Your task to perform on an android device: Go to calendar. Show me events next week Image 0: 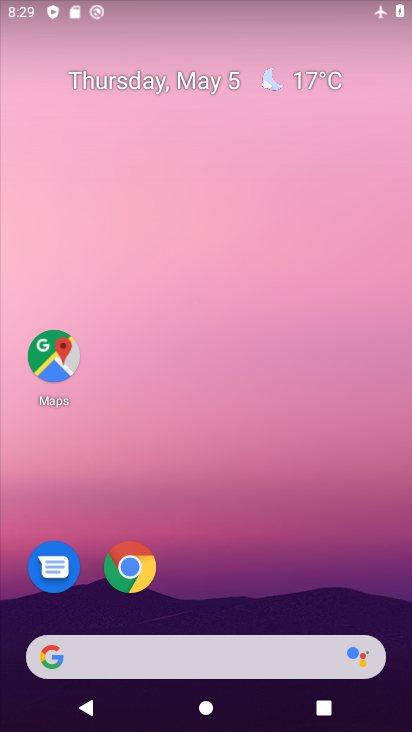
Step 0: drag from (224, 727) to (202, 154)
Your task to perform on an android device: Go to calendar. Show me events next week Image 1: 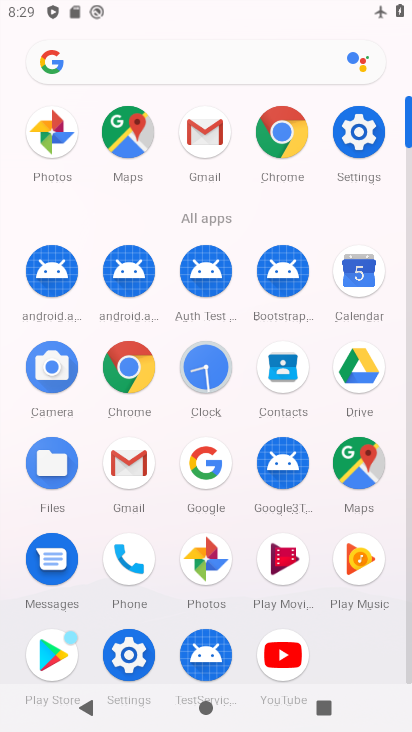
Step 1: click (360, 274)
Your task to perform on an android device: Go to calendar. Show me events next week Image 2: 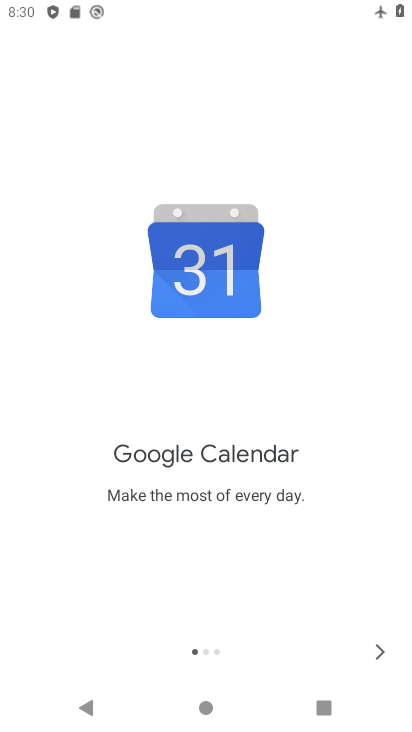
Step 2: click (379, 655)
Your task to perform on an android device: Go to calendar. Show me events next week Image 3: 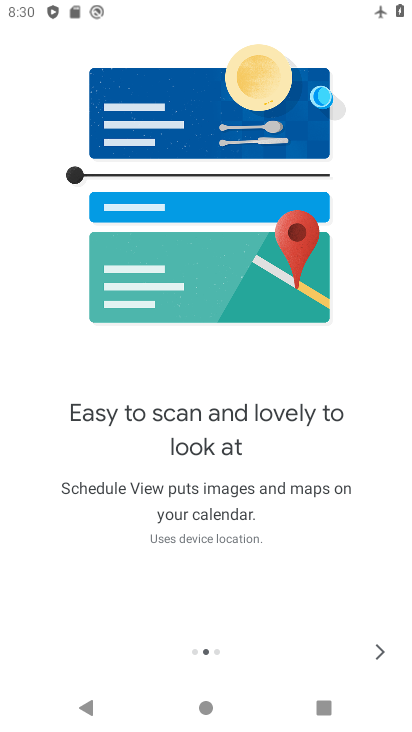
Step 3: click (378, 648)
Your task to perform on an android device: Go to calendar. Show me events next week Image 4: 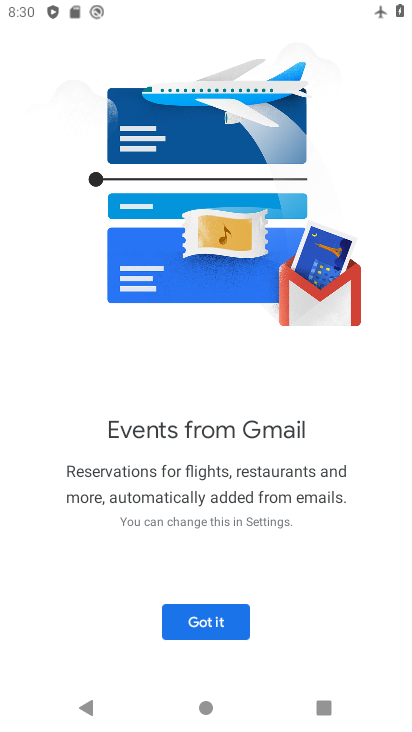
Step 4: click (213, 616)
Your task to perform on an android device: Go to calendar. Show me events next week Image 5: 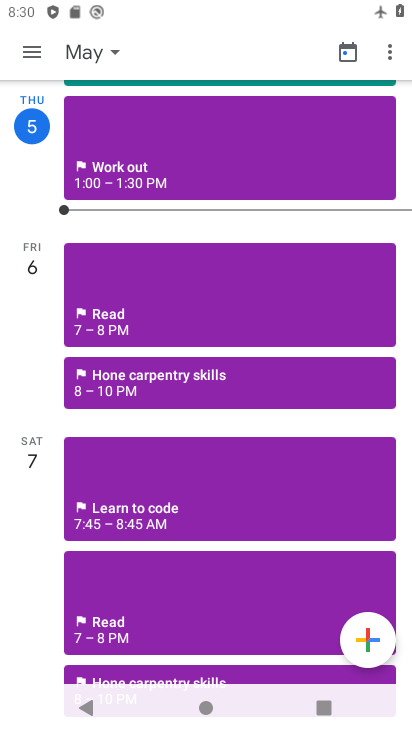
Step 5: click (30, 49)
Your task to perform on an android device: Go to calendar. Show me events next week Image 6: 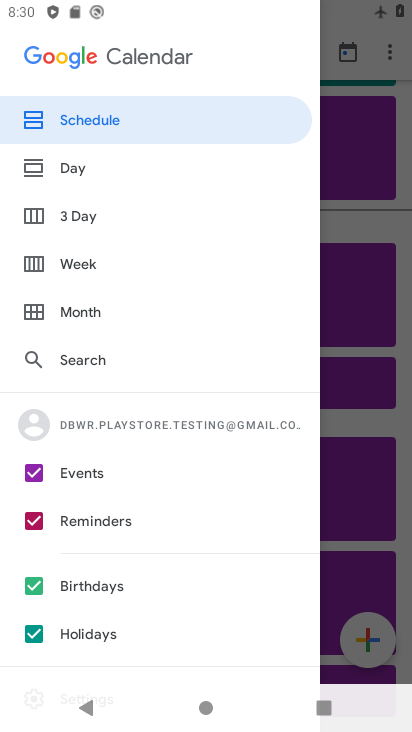
Step 6: click (36, 629)
Your task to perform on an android device: Go to calendar. Show me events next week Image 7: 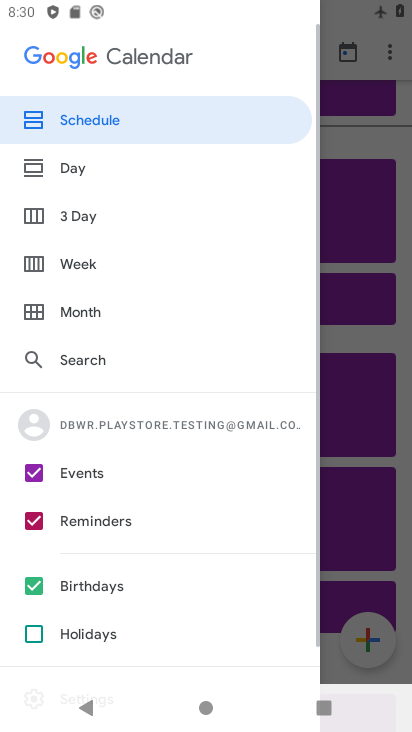
Step 7: click (34, 581)
Your task to perform on an android device: Go to calendar. Show me events next week Image 8: 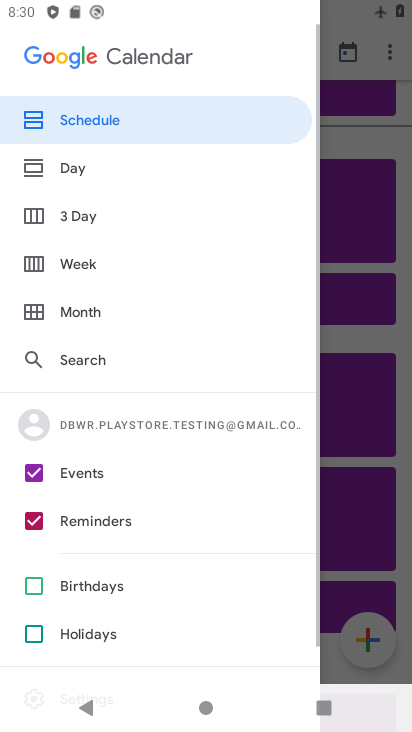
Step 8: click (33, 520)
Your task to perform on an android device: Go to calendar. Show me events next week Image 9: 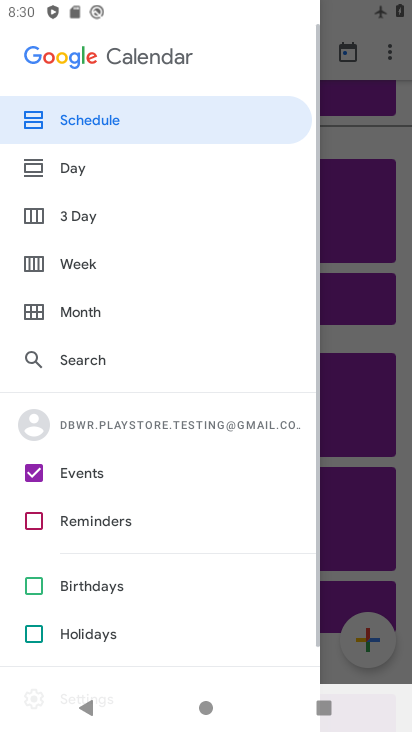
Step 9: click (82, 259)
Your task to perform on an android device: Go to calendar. Show me events next week Image 10: 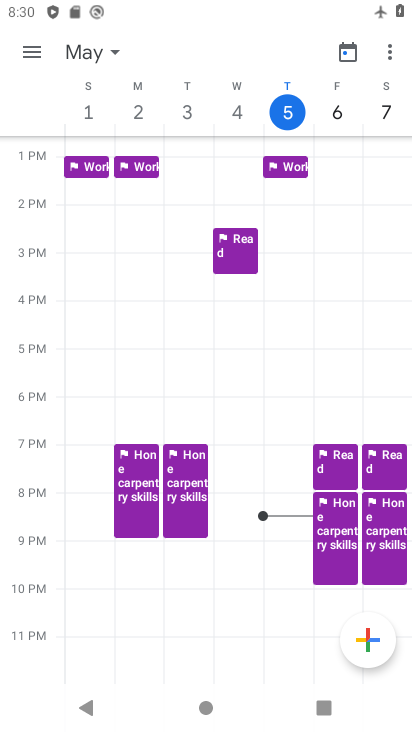
Step 10: task complete